Your task to perform on an android device: delete a single message in the gmail app Image 0: 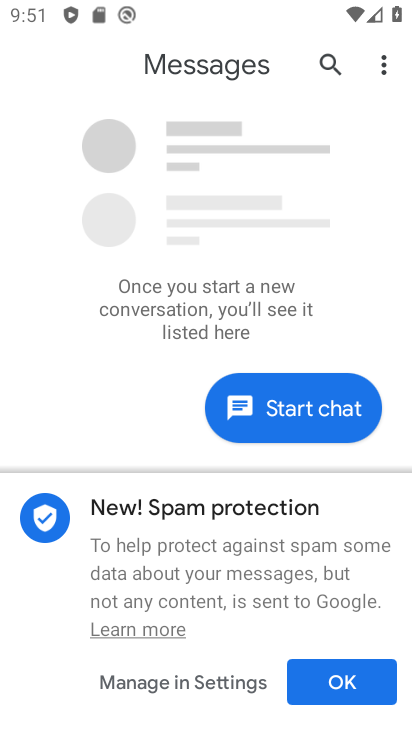
Step 0: click (330, 685)
Your task to perform on an android device: delete a single message in the gmail app Image 1: 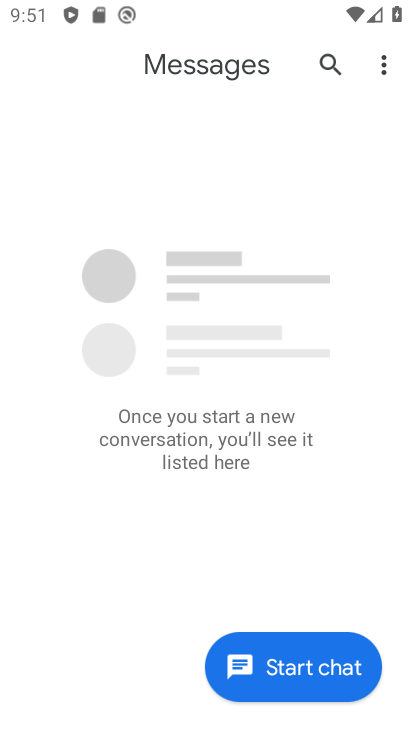
Step 1: task complete